Your task to perform on an android device: Do I have any events today? Image 0: 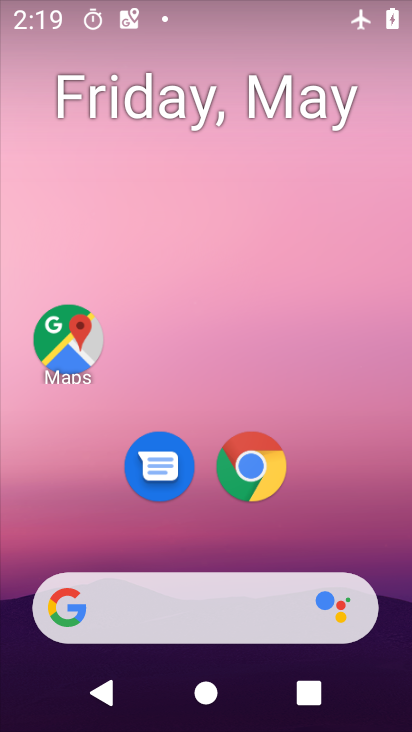
Step 0: drag from (333, 536) to (345, 30)
Your task to perform on an android device: Do I have any events today? Image 1: 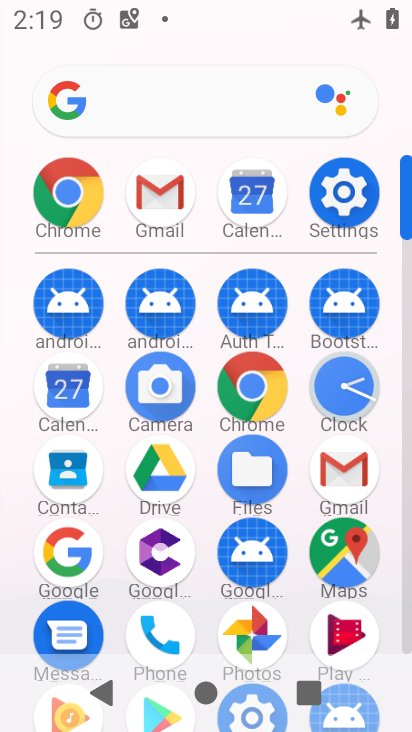
Step 1: click (76, 194)
Your task to perform on an android device: Do I have any events today? Image 2: 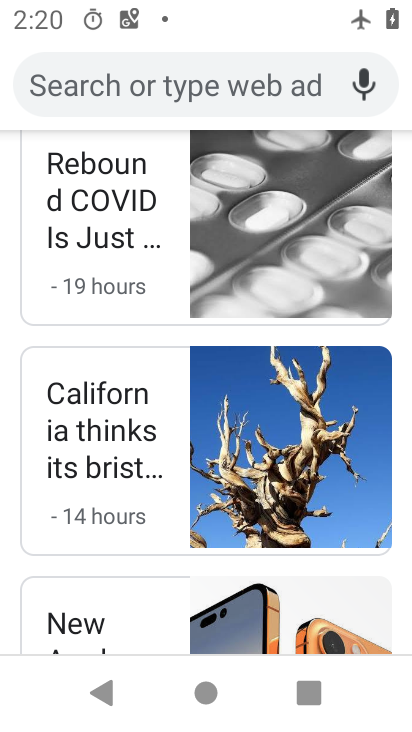
Step 2: press home button
Your task to perform on an android device: Do I have any events today? Image 3: 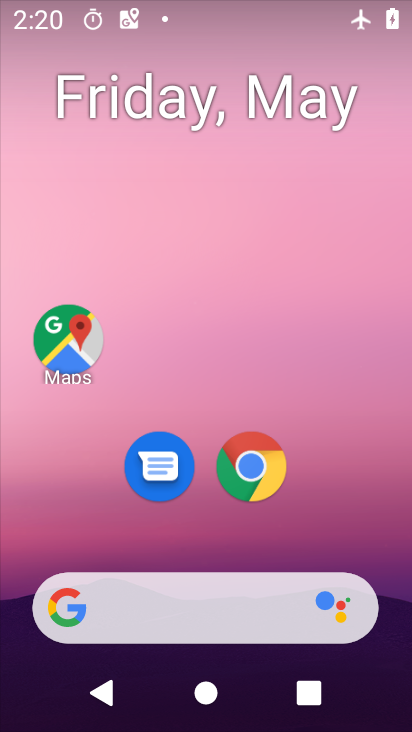
Step 3: drag from (350, 319) to (391, 13)
Your task to perform on an android device: Do I have any events today? Image 4: 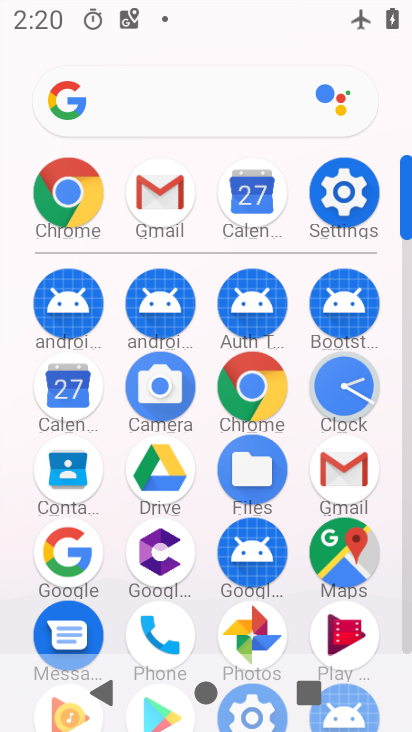
Step 4: click (59, 414)
Your task to perform on an android device: Do I have any events today? Image 5: 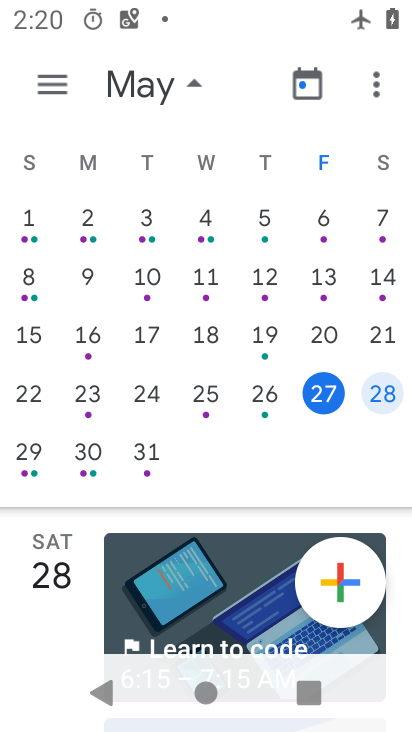
Step 5: task complete